Your task to perform on an android device: Open Wikipedia Image 0: 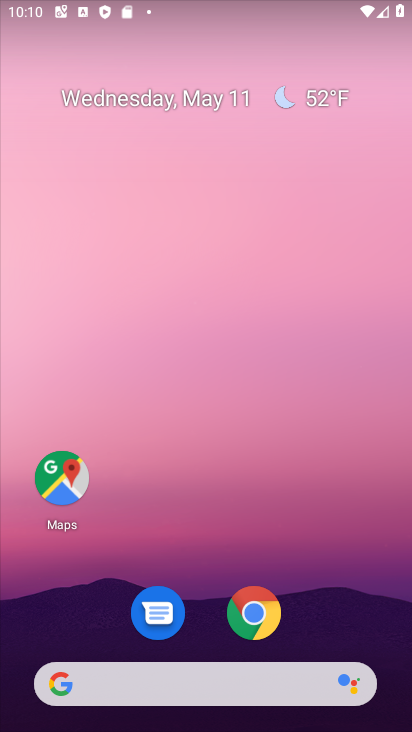
Step 0: drag from (218, 548) to (220, 117)
Your task to perform on an android device: Open Wikipedia Image 1: 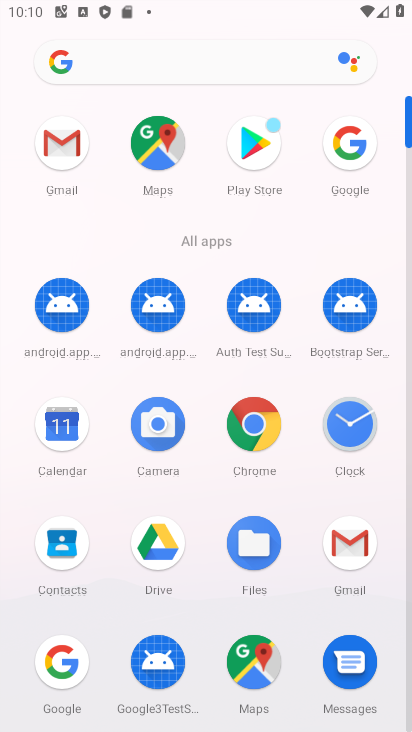
Step 1: click (249, 417)
Your task to perform on an android device: Open Wikipedia Image 2: 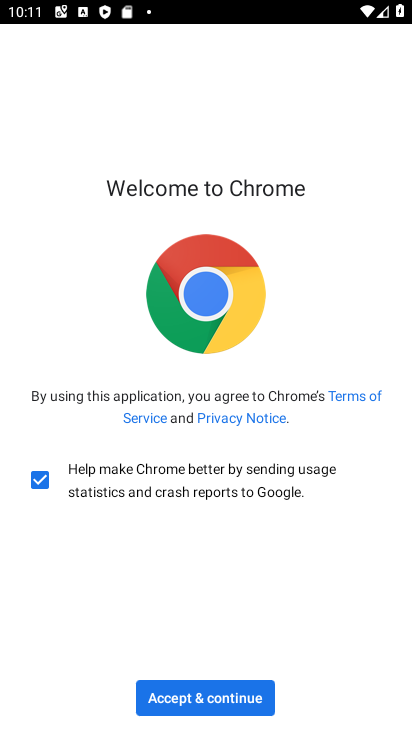
Step 2: click (228, 701)
Your task to perform on an android device: Open Wikipedia Image 3: 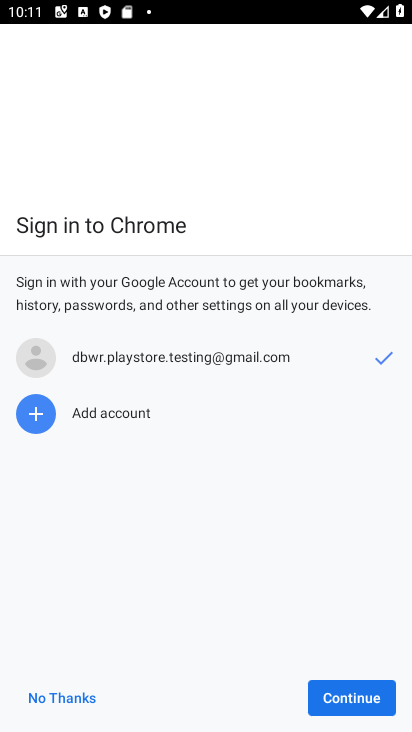
Step 3: click (50, 695)
Your task to perform on an android device: Open Wikipedia Image 4: 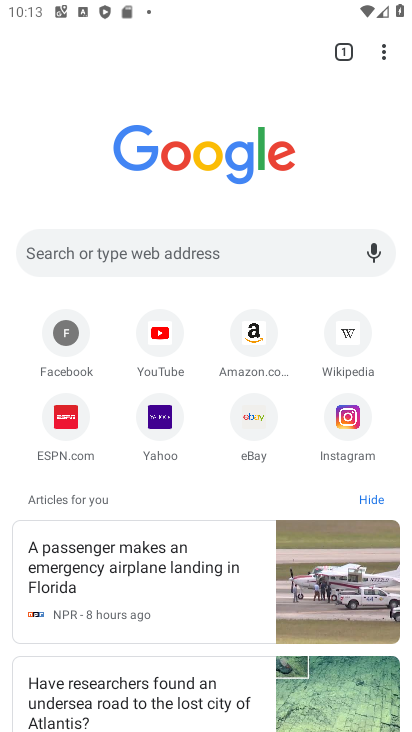
Step 4: click (331, 331)
Your task to perform on an android device: Open Wikipedia Image 5: 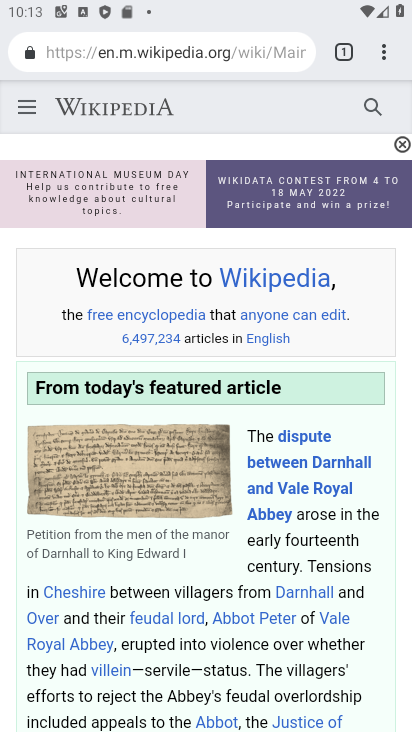
Step 5: task complete